Your task to perform on an android device: Search for jbl flip 4 on newegg, select the first entry, add it to the cart, then select checkout. Image 0: 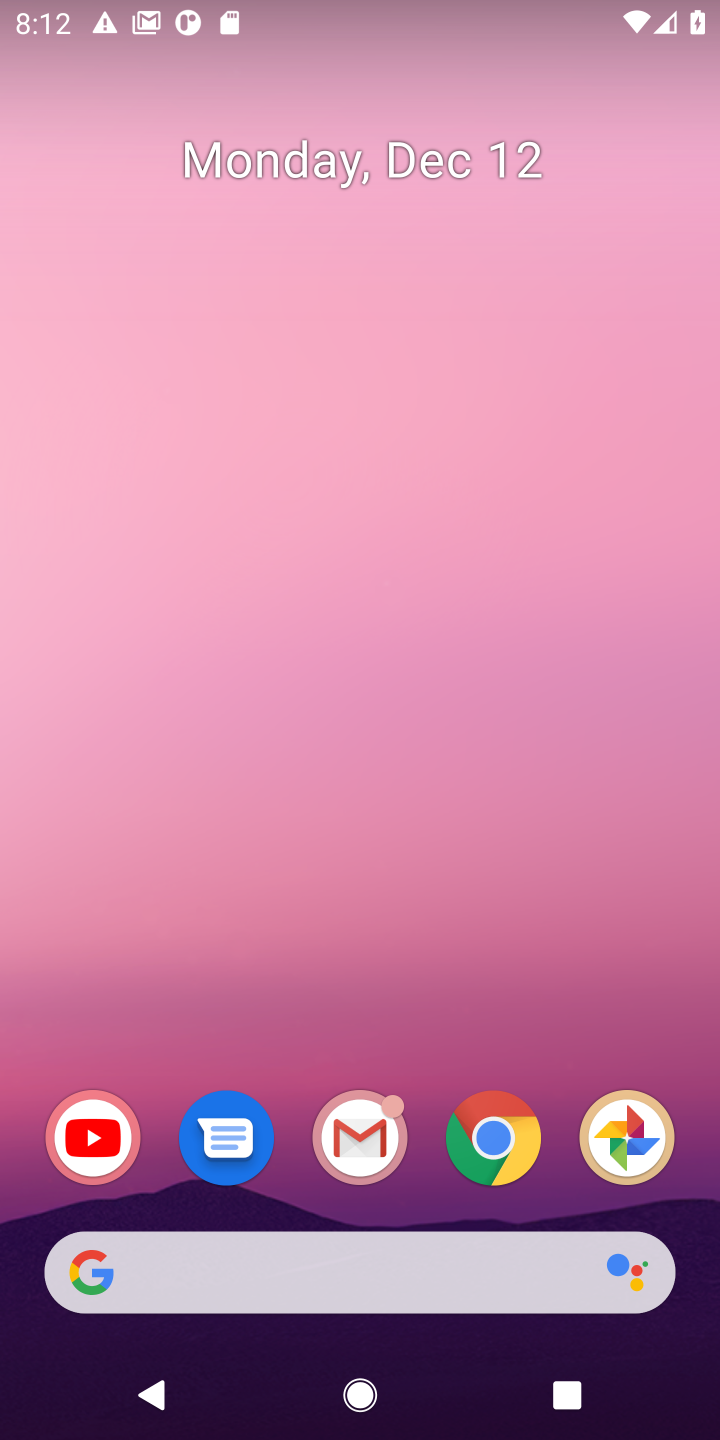
Step 0: drag from (427, 1264) to (516, 355)
Your task to perform on an android device: Search for jbl flip 4 on newegg, select the first entry, add it to the cart, then select checkout. Image 1: 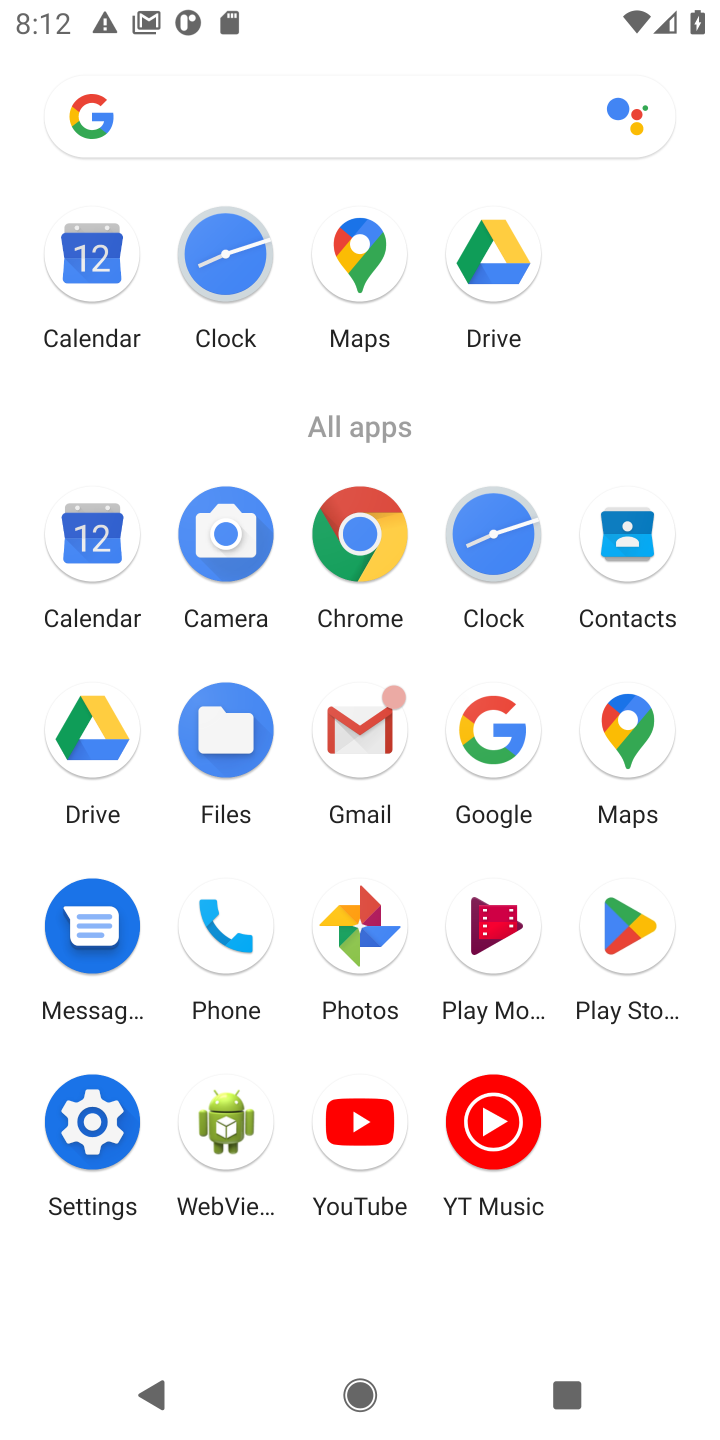
Step 1: click (496, 712)
Your task to perform on an android device: Search for jbl flip 4 on newegg, select the first entry, add it to the cart, then select checkout. Image 2: 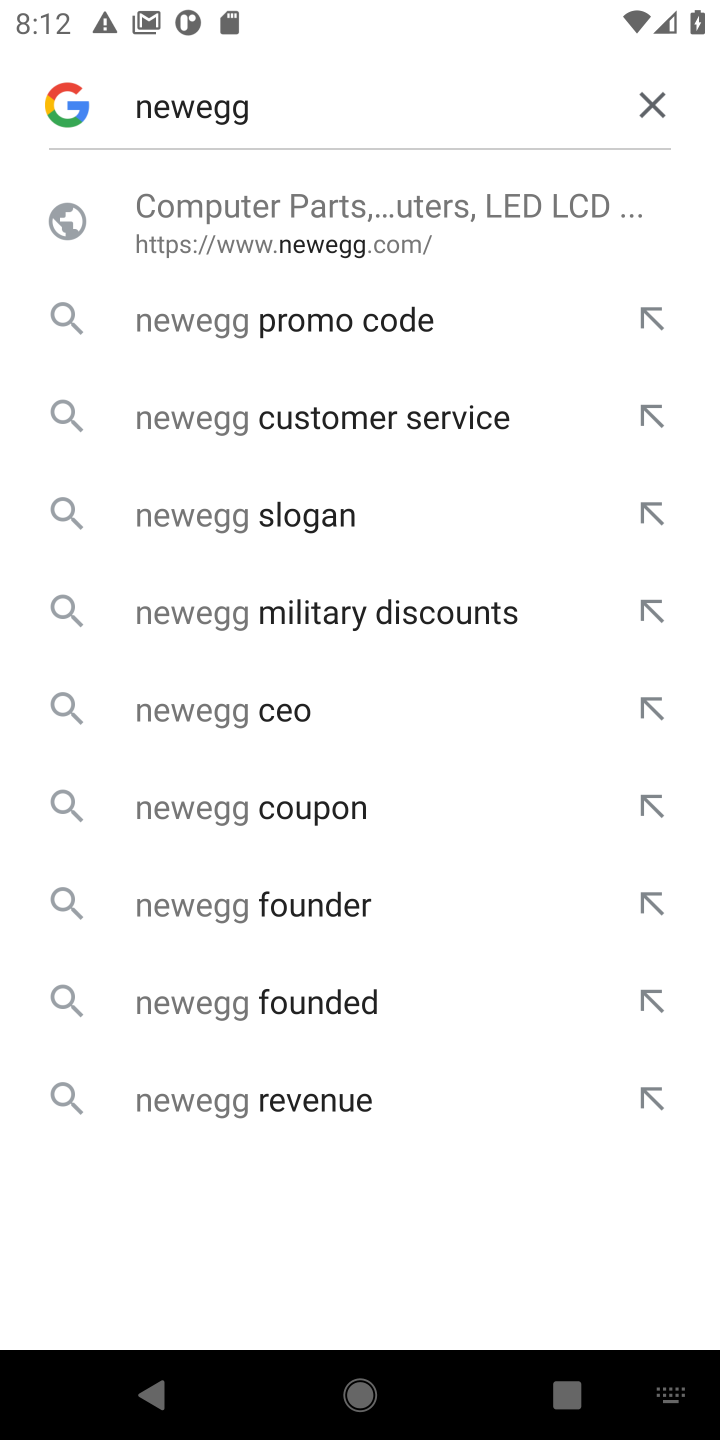
Step 2: click (219, 219)
Your task to perform on an android device: Search for jbl flip 4 on newegg, select the first entry, add it to the cart, then select checkout. Image 3: 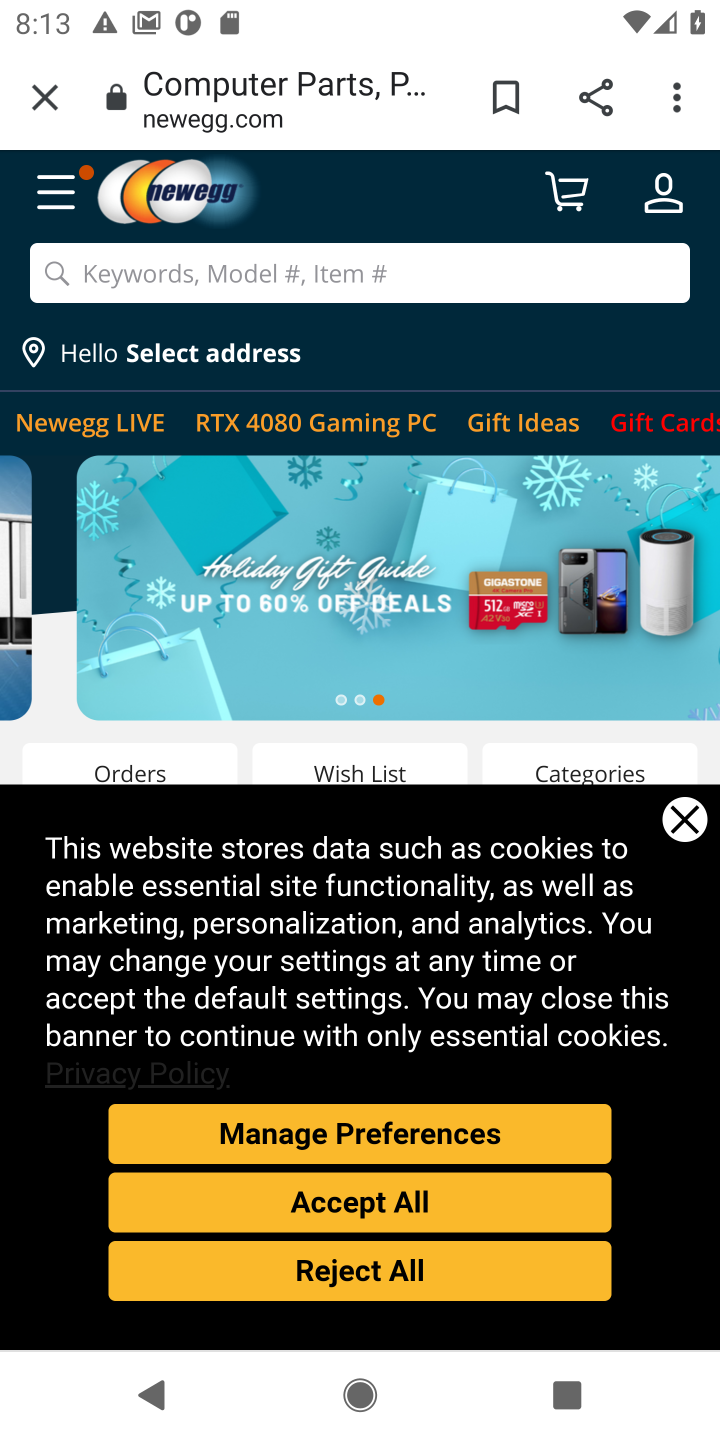
Step 3: click (149, 273)
Your task to perform on an android device: Search for jbl flip 4 on newegg, select the first entry, add it to the cart, then select checkout. Image 4: 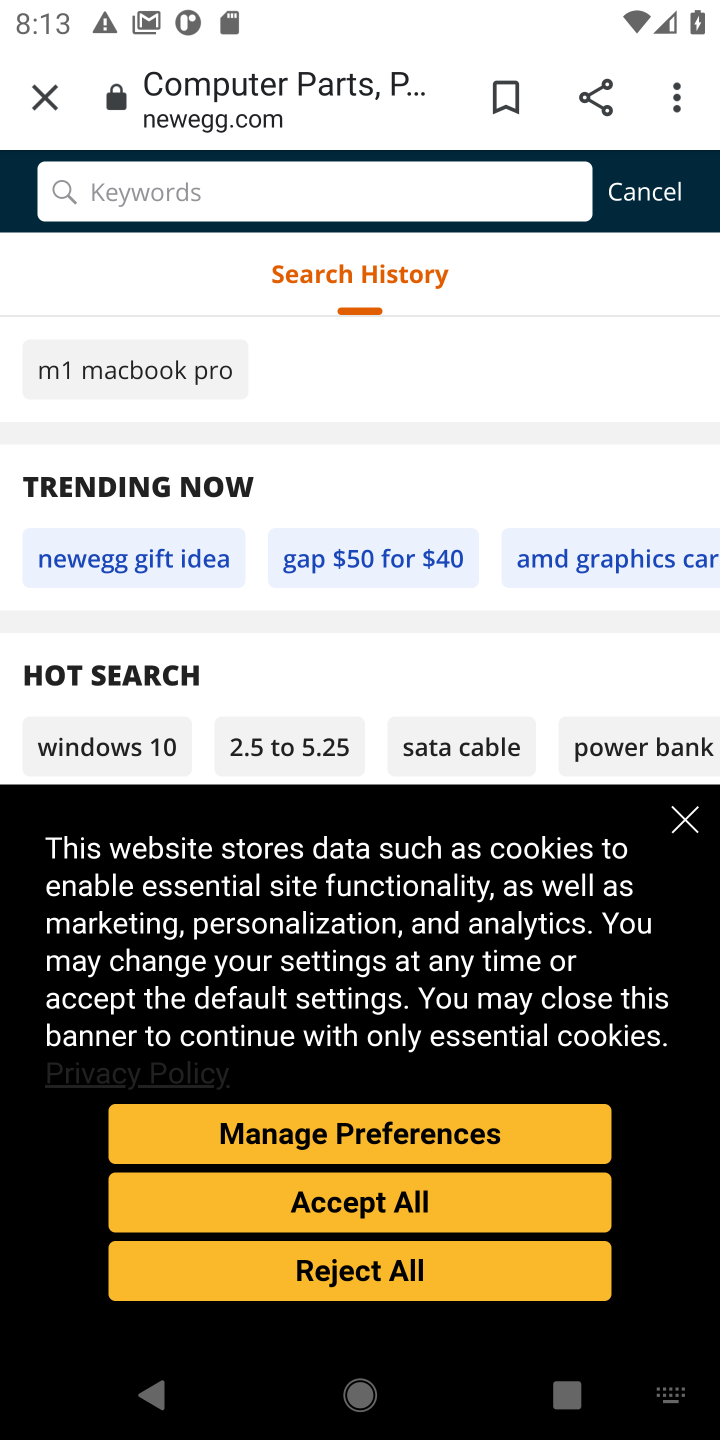
Step 4: type "jbl flip 4"
Your task to perform on an android device: Search for jbl flip 4 on newegg, select the first entry, add it to the cart, then select checkout. Image 5: 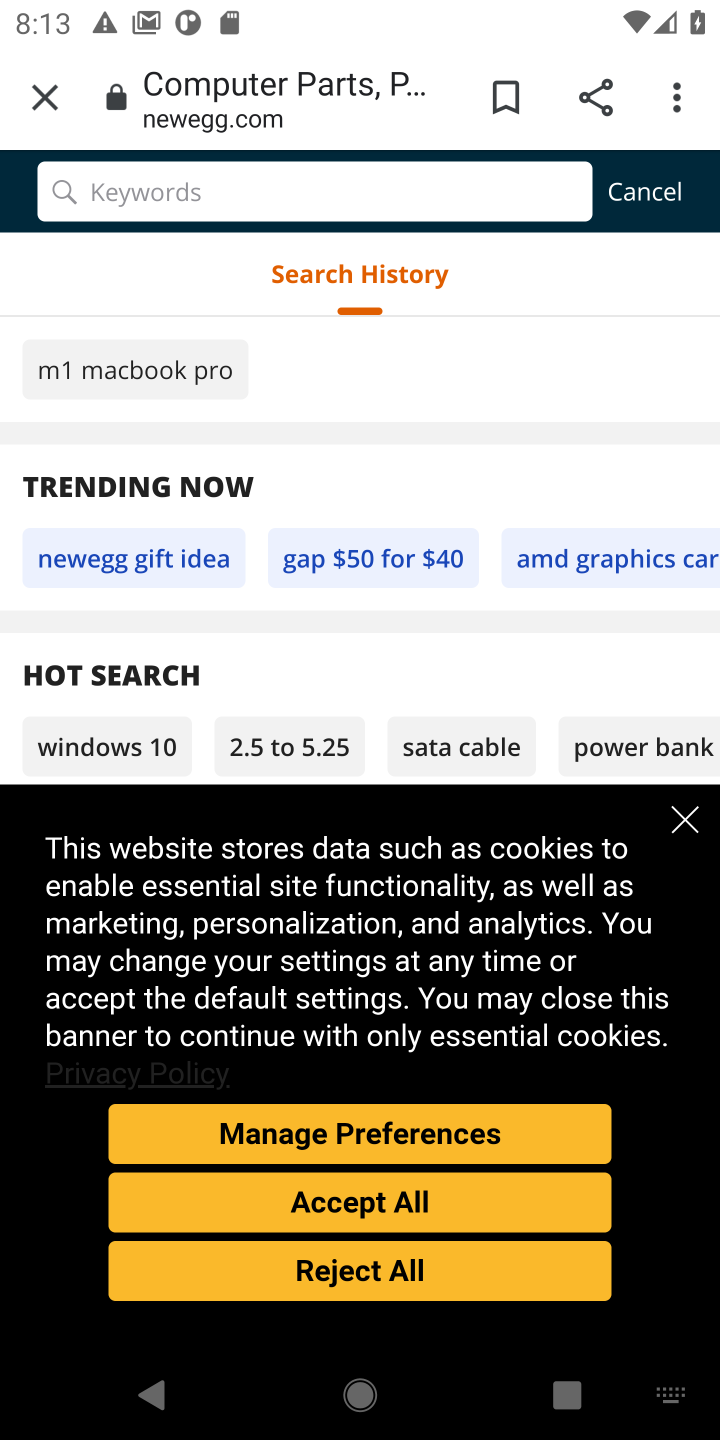
Step 5: click (64, 180)
Your task to perform on an android device: Search for jbl flip 4 on newegg, select the first entry, add it to the cart, then select checkout. Image 6: 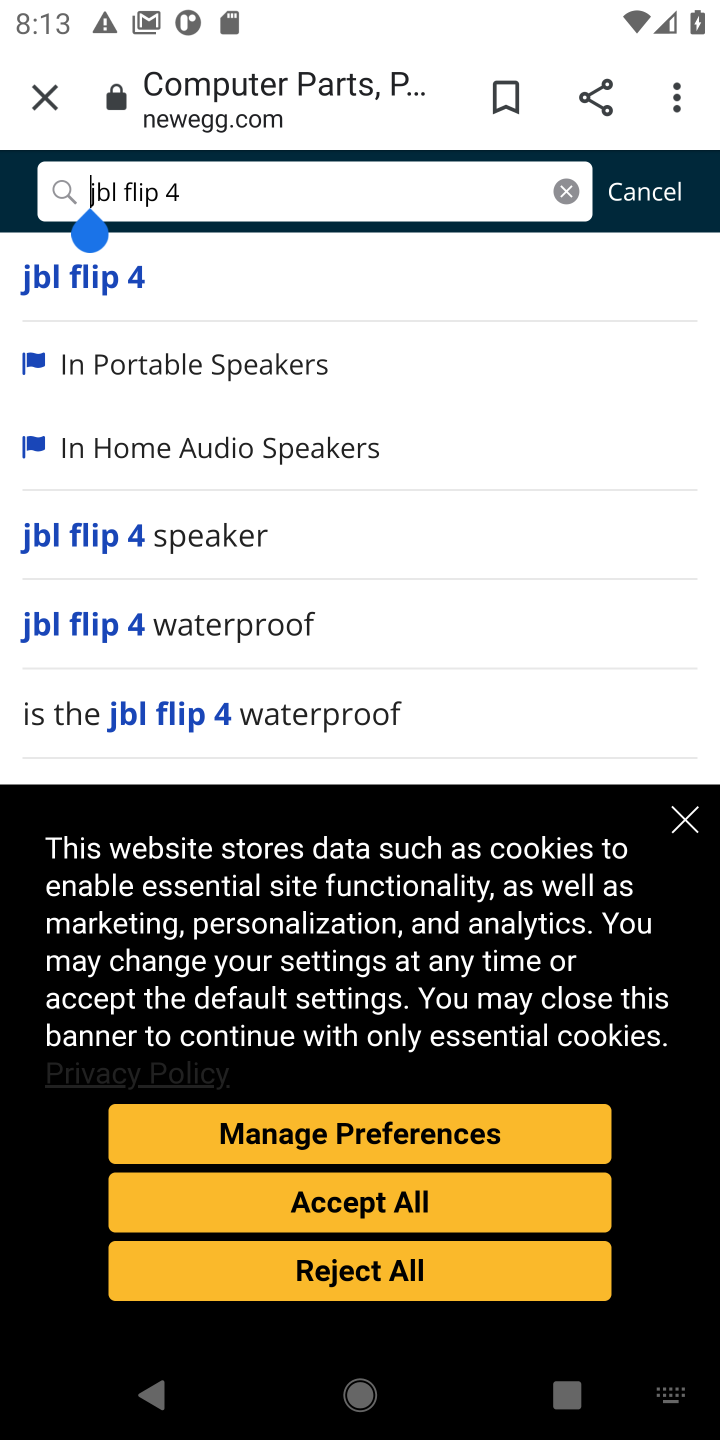
Step 6: click (51, 280)
Your task to perform on an android device: Search for jbl flip 4 on newegg, select the first entry, add it to the cart, then select checkout. Image 7: 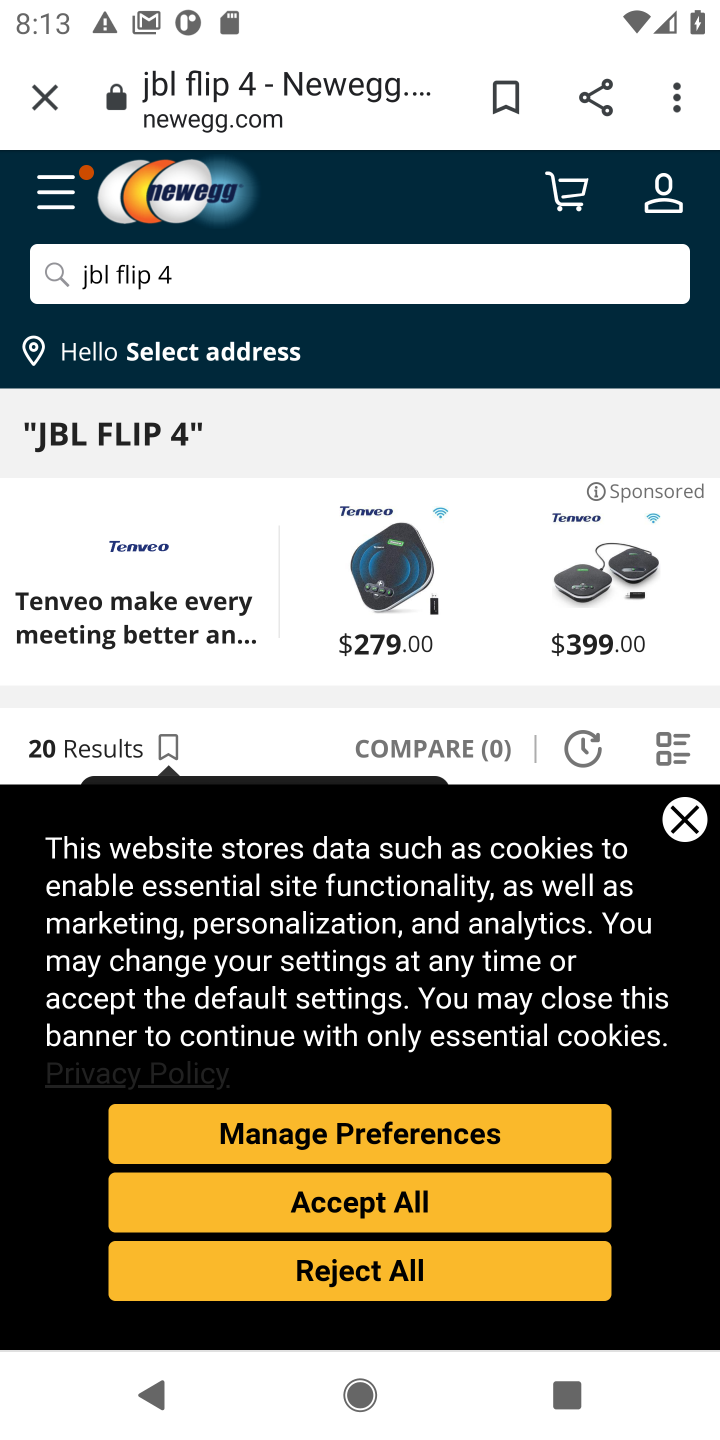
Step 7: click (682, 827)
Your task to perform on an android device: Search for jbl flip 4 on newegg, select the first entry, add it to the cart, then select checkout. Image 8: 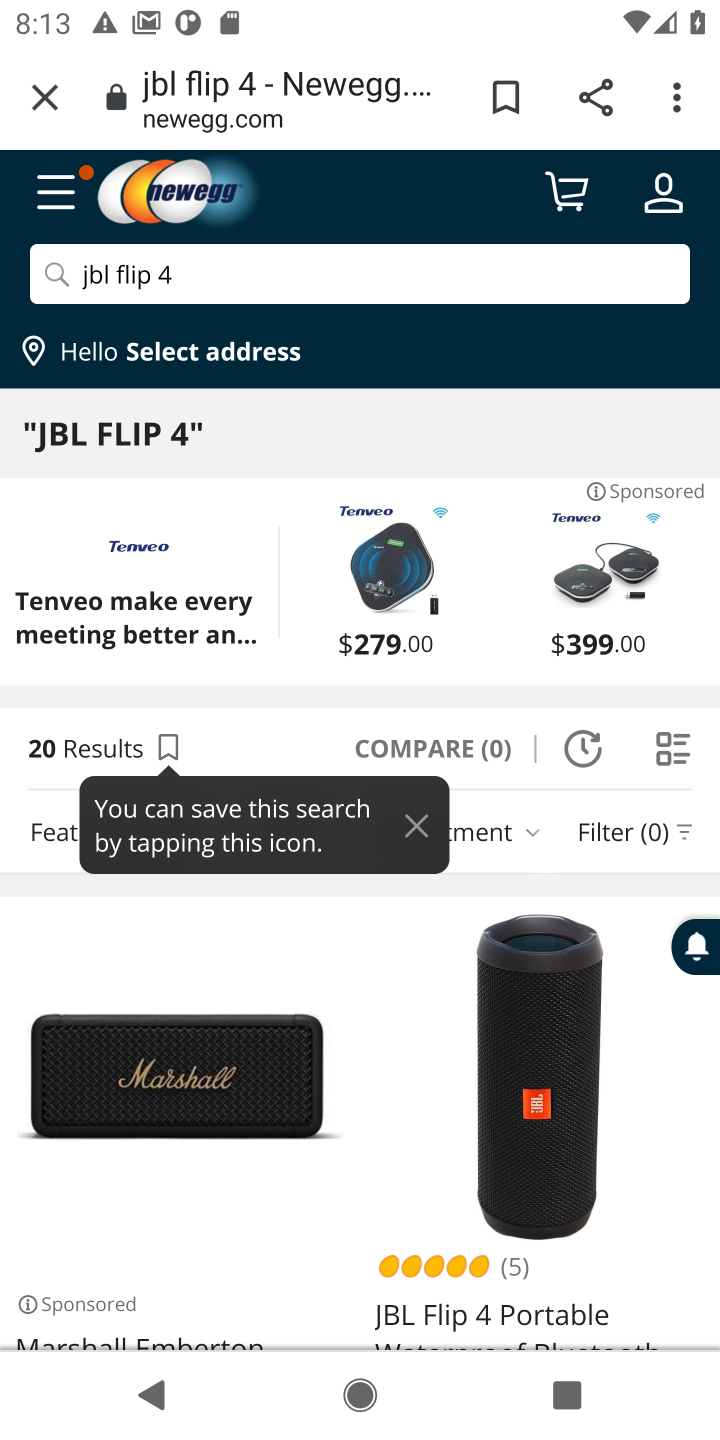
Step 8: drag from (419, 1177) to (419, 461)
Your task to perform on an android device: Search for jbl flip 4 on newegg, select the first entry, add it to the cart, then select checkout. Image 9: 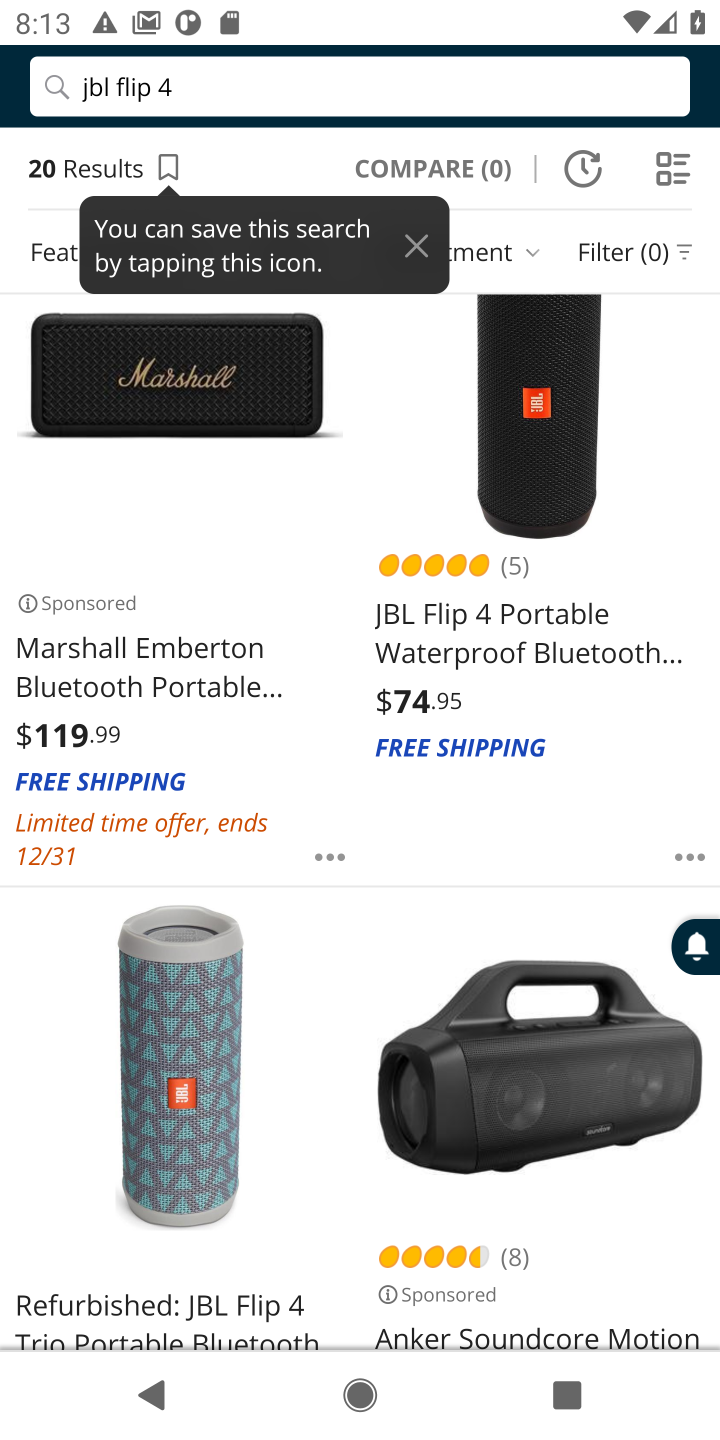
Step 9: click (139, 623)
Your task to perform on an android device: Search for jbl flip 4 on newegg, select the first entry, add it to the cart, then select checkout. Image 10: 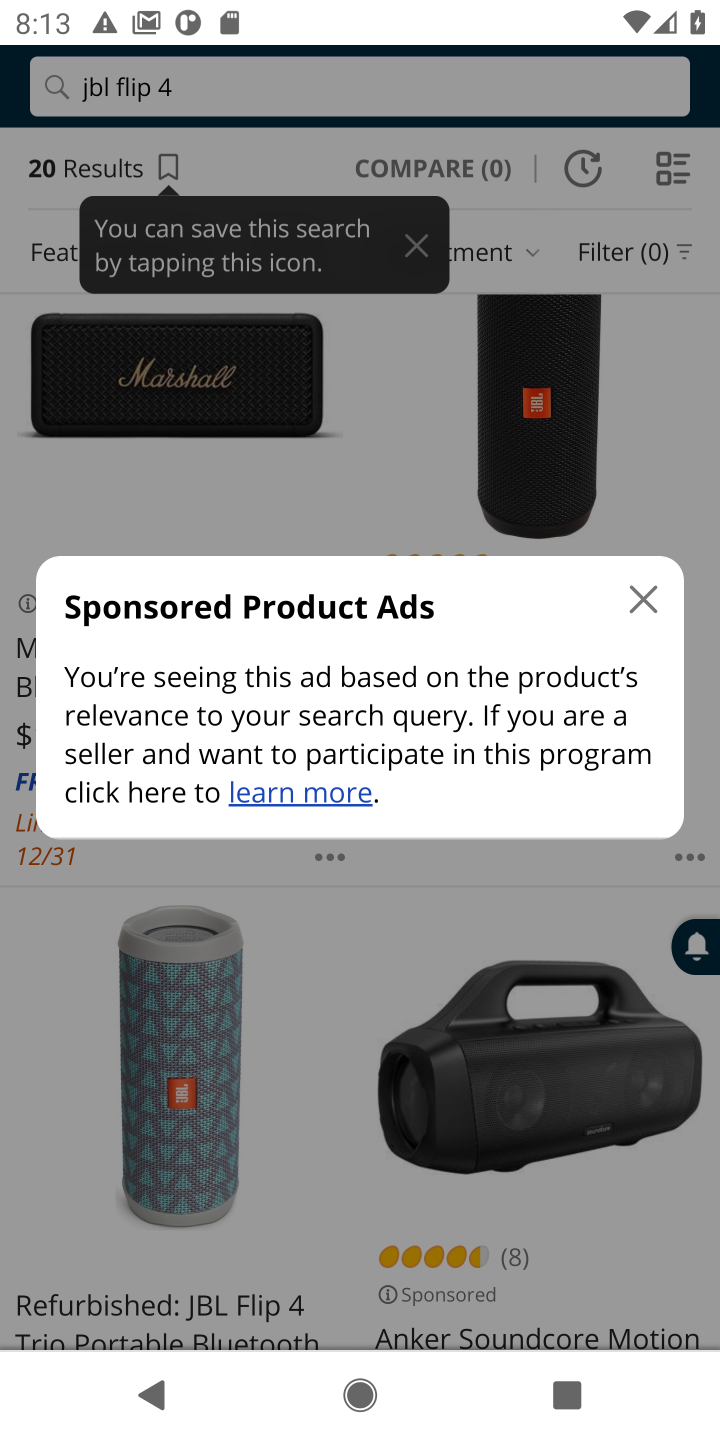
Step 10: click (653, 587)
Your task to perform on an android device: Search for jbl flip 4 on newegg, select the first entry, add it to the cart, then select checkout. Image 11: 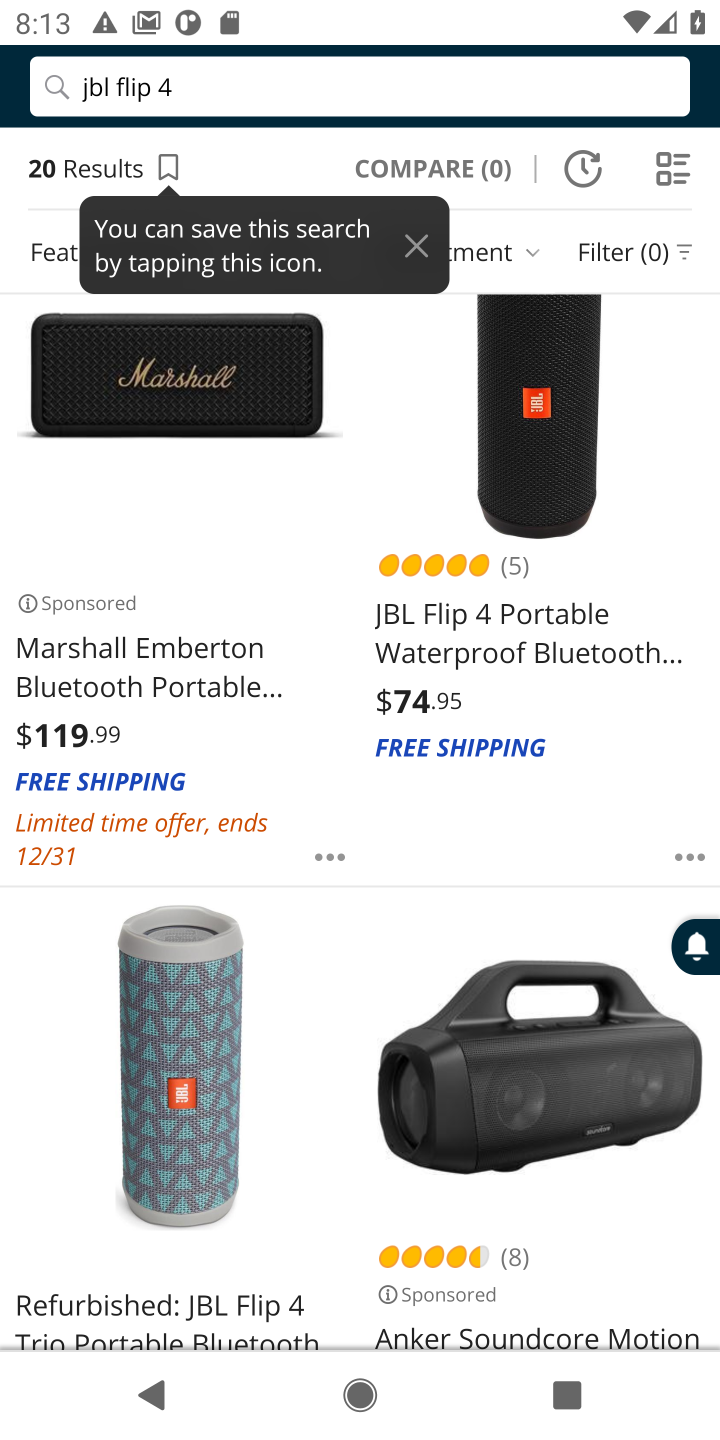
Step 11: click (112, 411)
Your task to perform on an android device: Search for jbl flip 4 on newegg, select the first entry, add it to the cart, then select checkout. Image 12: 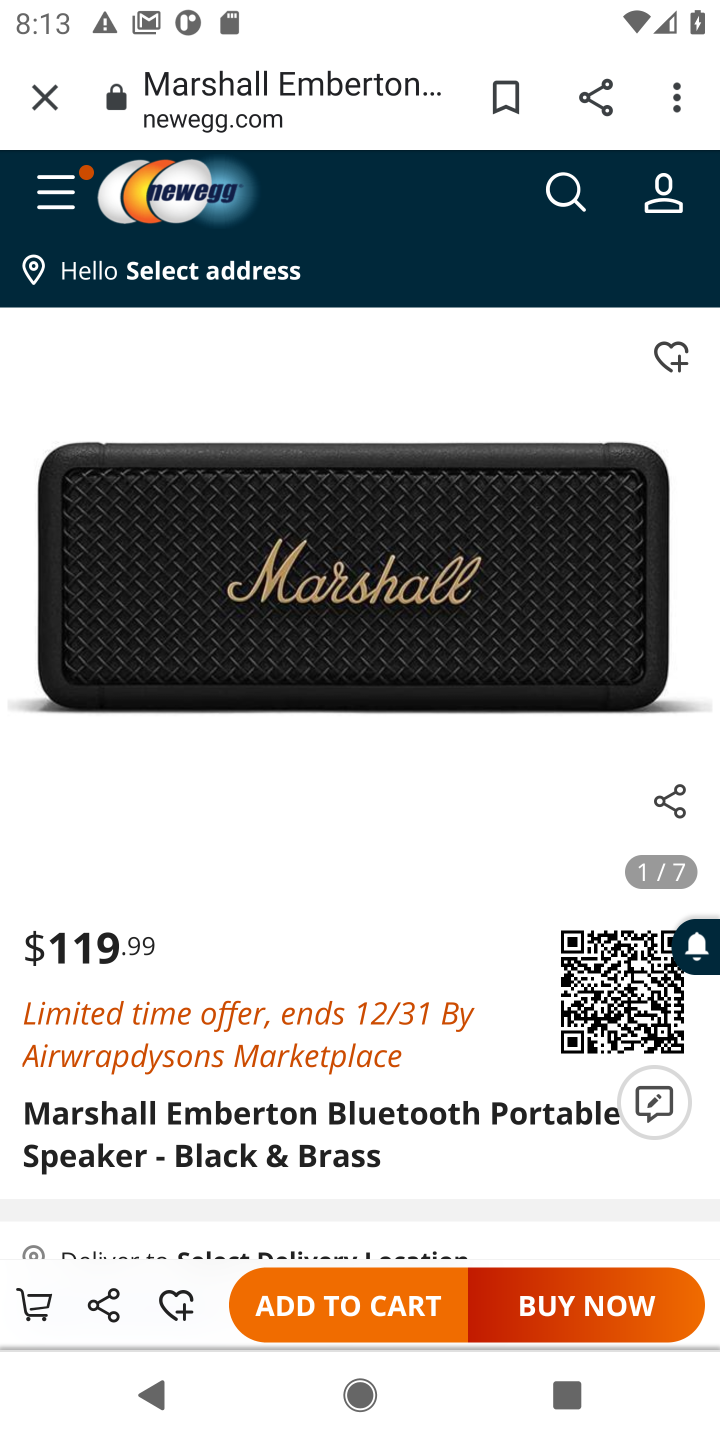
Step 12: click (365, 1297)
Your task to perform on an android device: Search for jbl flip 4 on newegg, select the first entry, add it to the cart, then select checkout. Image 13: 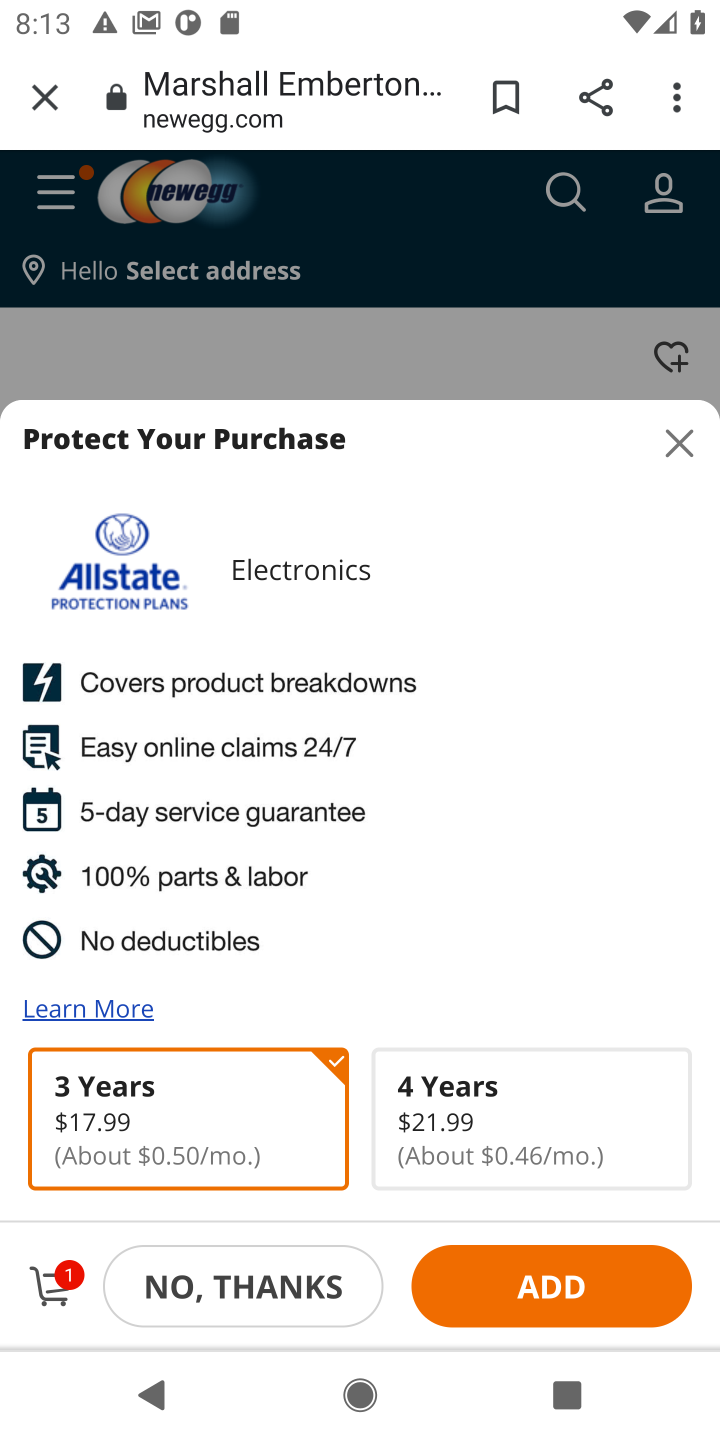
Step 13: click (681, 443)
Your task to perform on an android device: Search for jbl flip 4 on newegg, select the first entry, add it to the cart, then select checkout. Image 14: 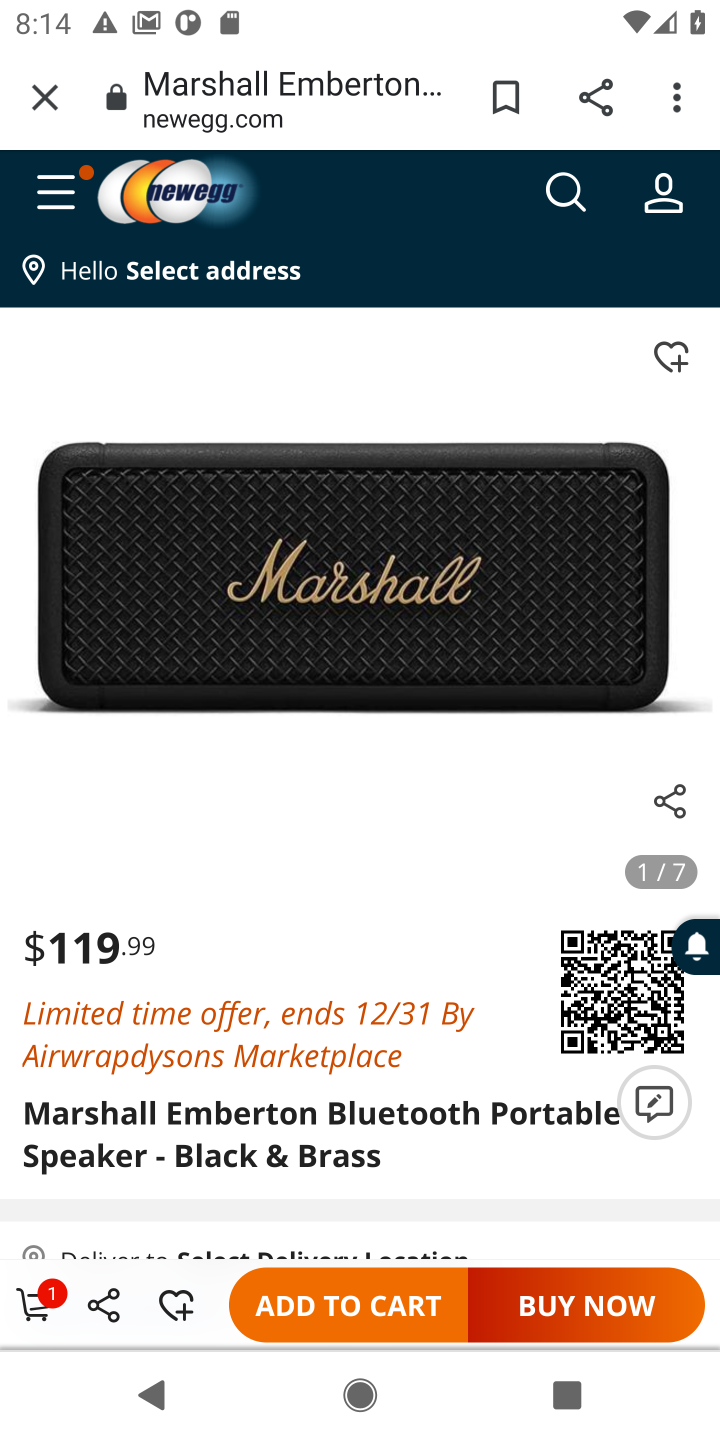
Step 14: click (40, 1297)
Your task to perform on an android device: Search for jbl flip 4 on newegg, select the first entry, add it to the cart, then select checkout. Image 15: 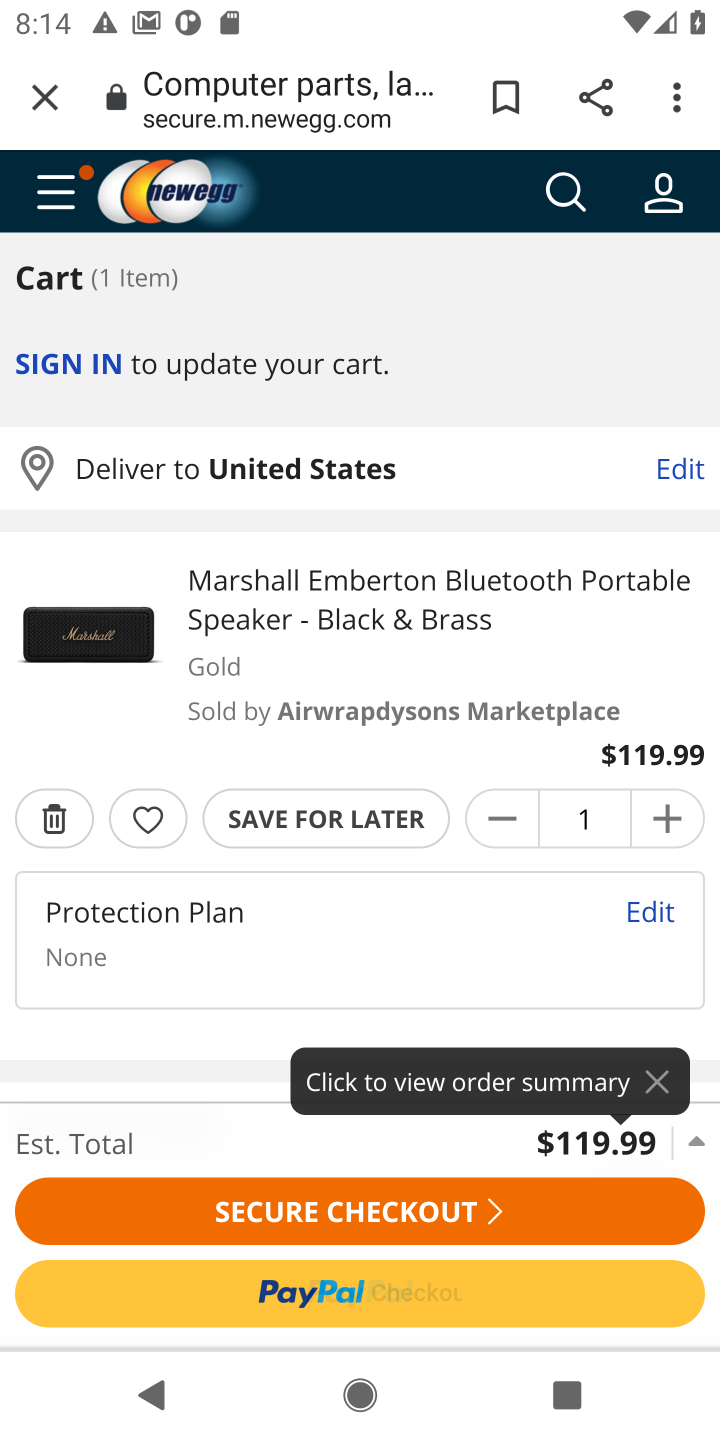
Step 15: click (367, 1203)
Your task to perform on an android device: Search for jbl flip 4 on newegg, select the first entry, add it to the cart, then select checkout. Image 16: 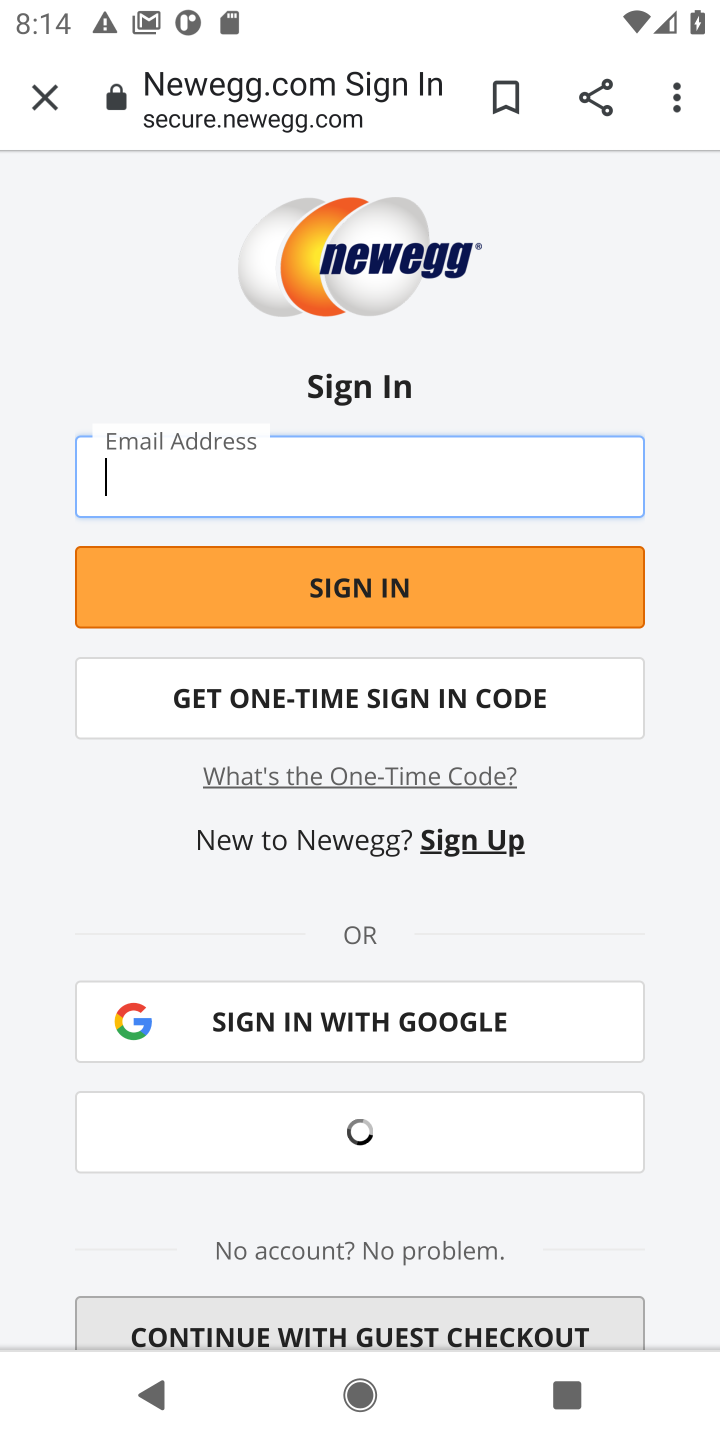
Step 16: task complete